Your task to perform on an android device: Look up the best rated book on Goodreads Image 0: 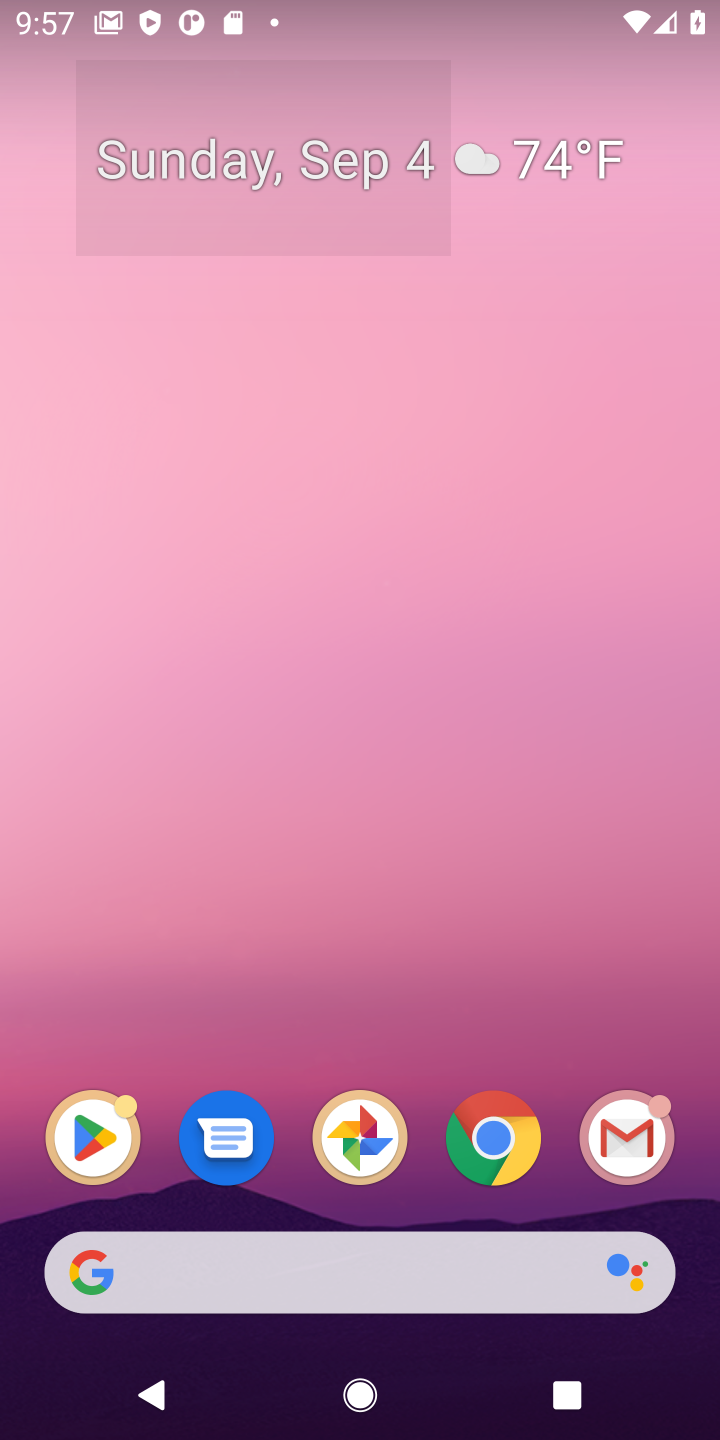
Step 0: click (512, 1128)
Your task to perform on an android device: Look up the best rated book on Goodreads Image 1: 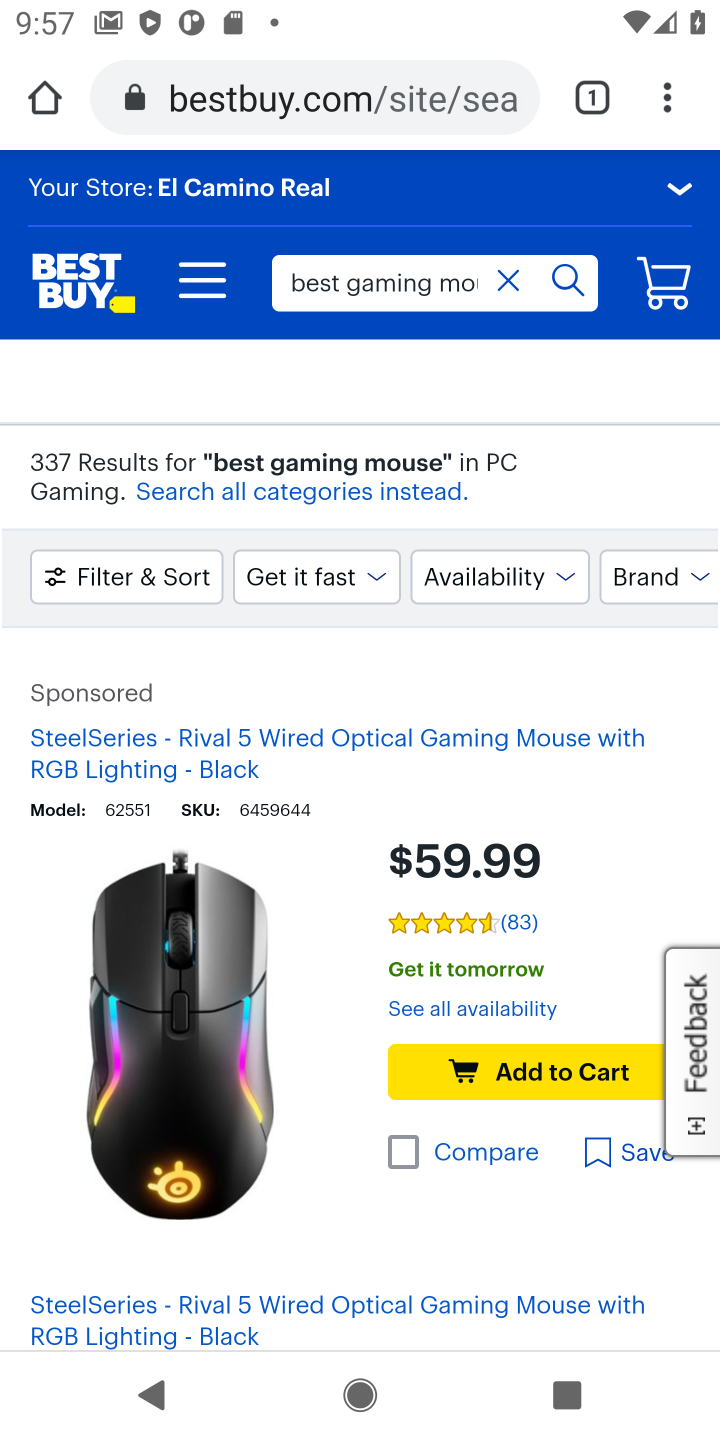
Step 1: click (416, 117)
Your task to perform on an android device: Look up the best rated book on Goodreads Image 2: 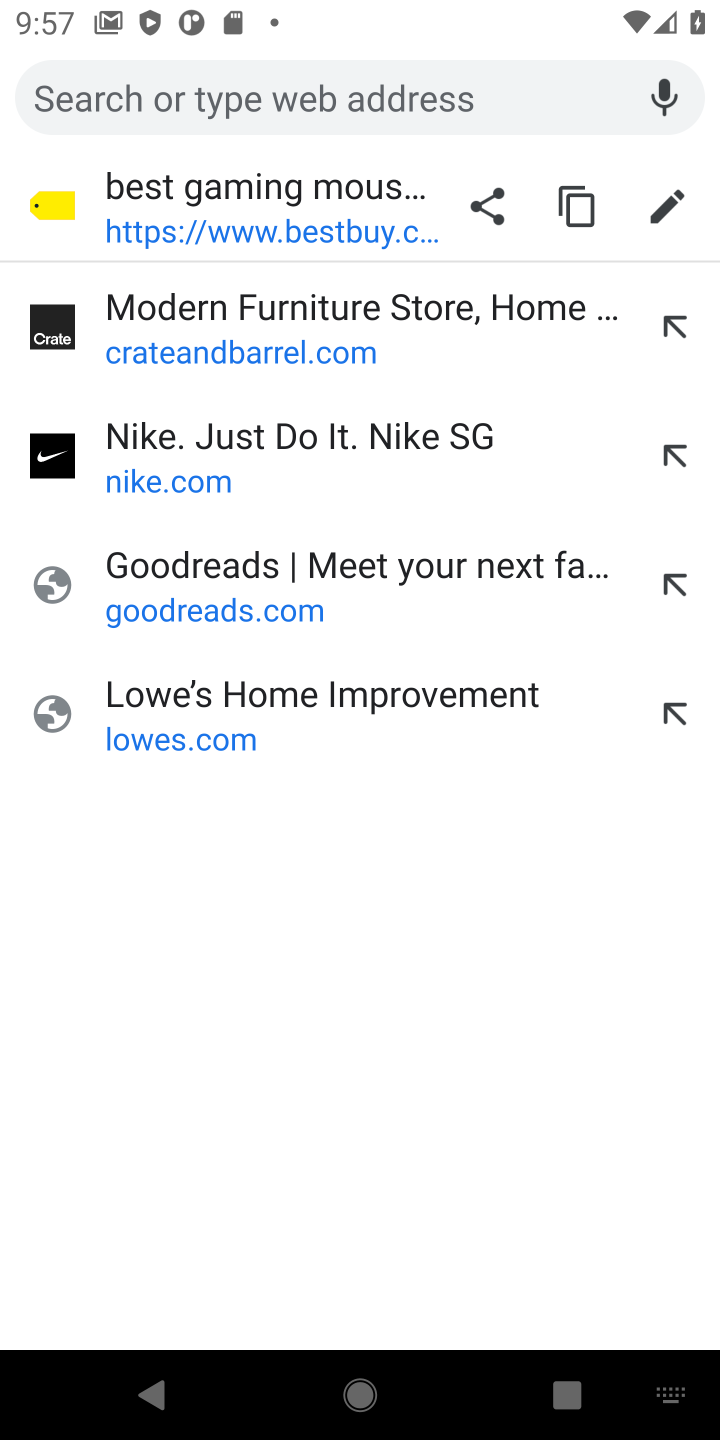
Step 2: type "goodreads"
Your task to perform on an android device: Look up the best rated book on Goodreads Image 3: 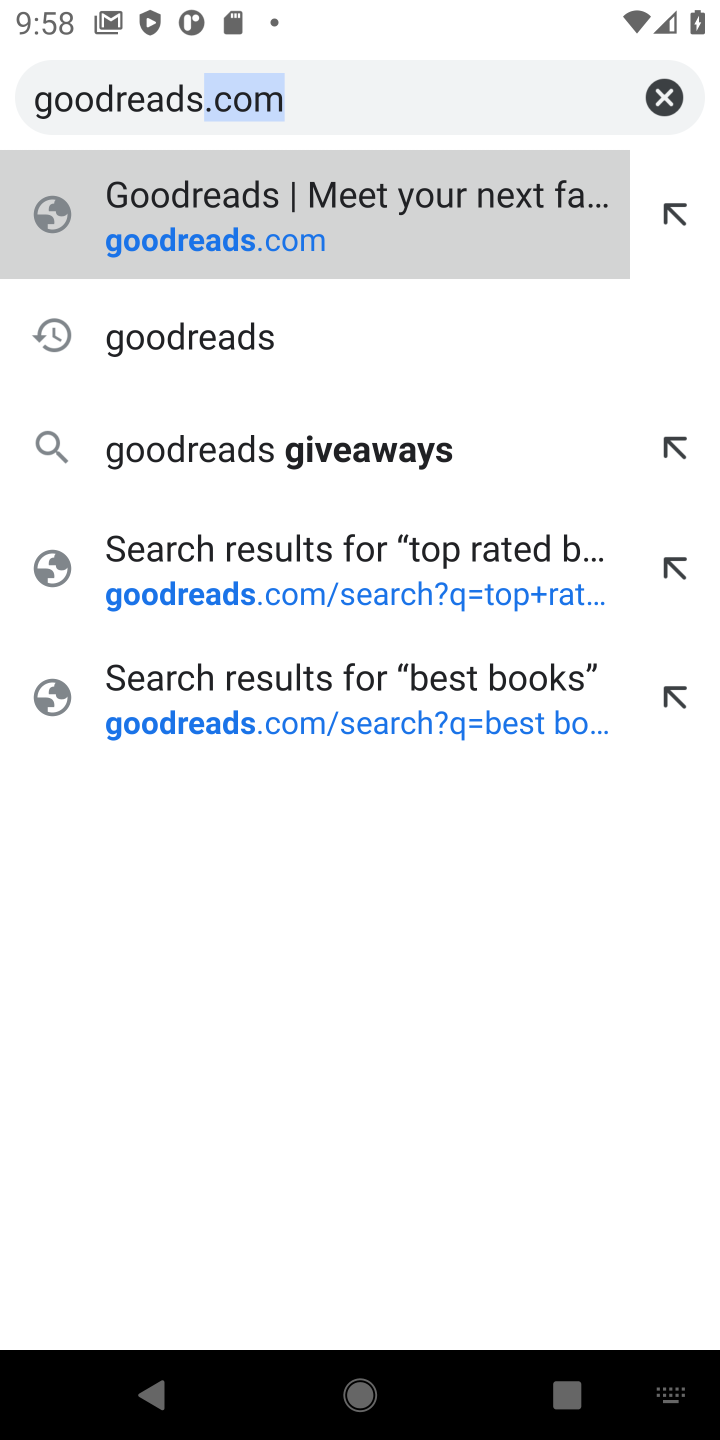
Step 3: click (370, 208)
Your task to perform on an android device: Look up the best rated book on Goodreads Image 4: 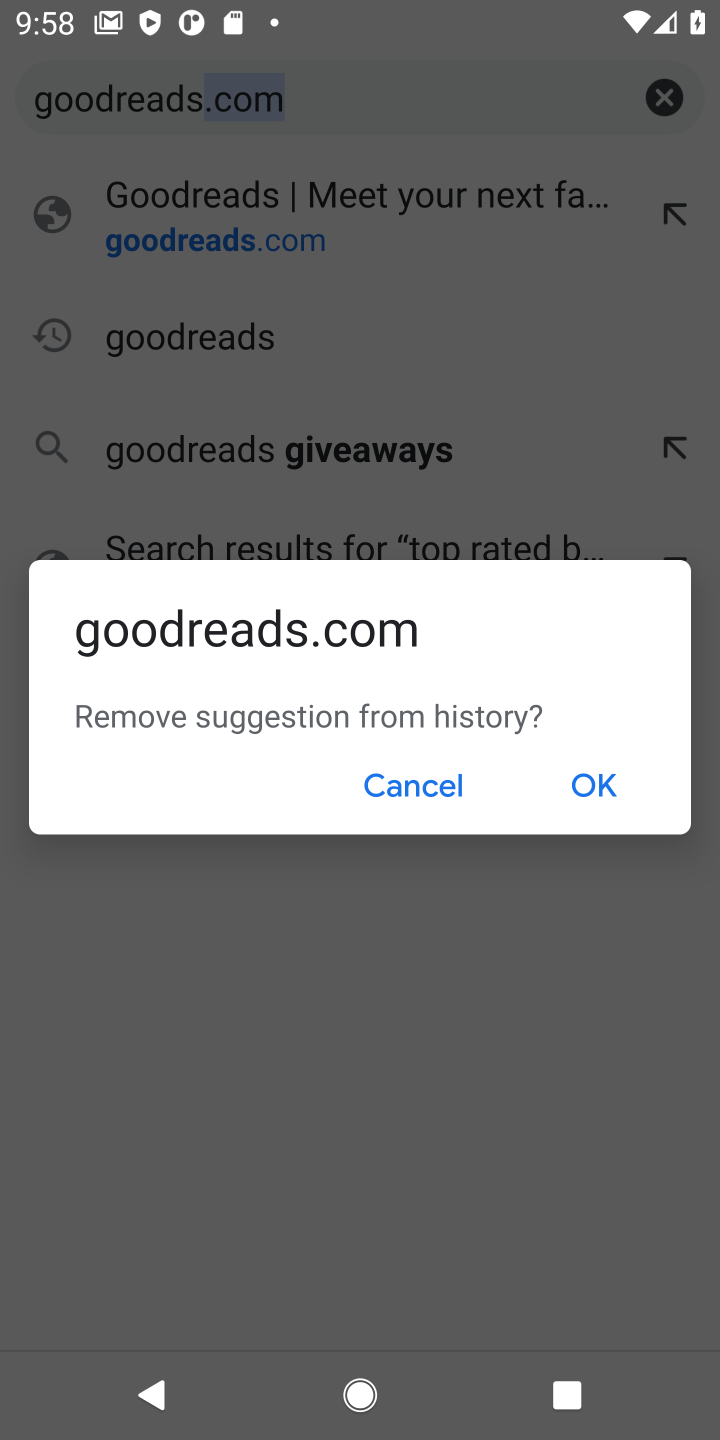
Step 4: click (468, 807)
Your task to perform on an android device: Look up the best rated book on Goodreads Image 5: 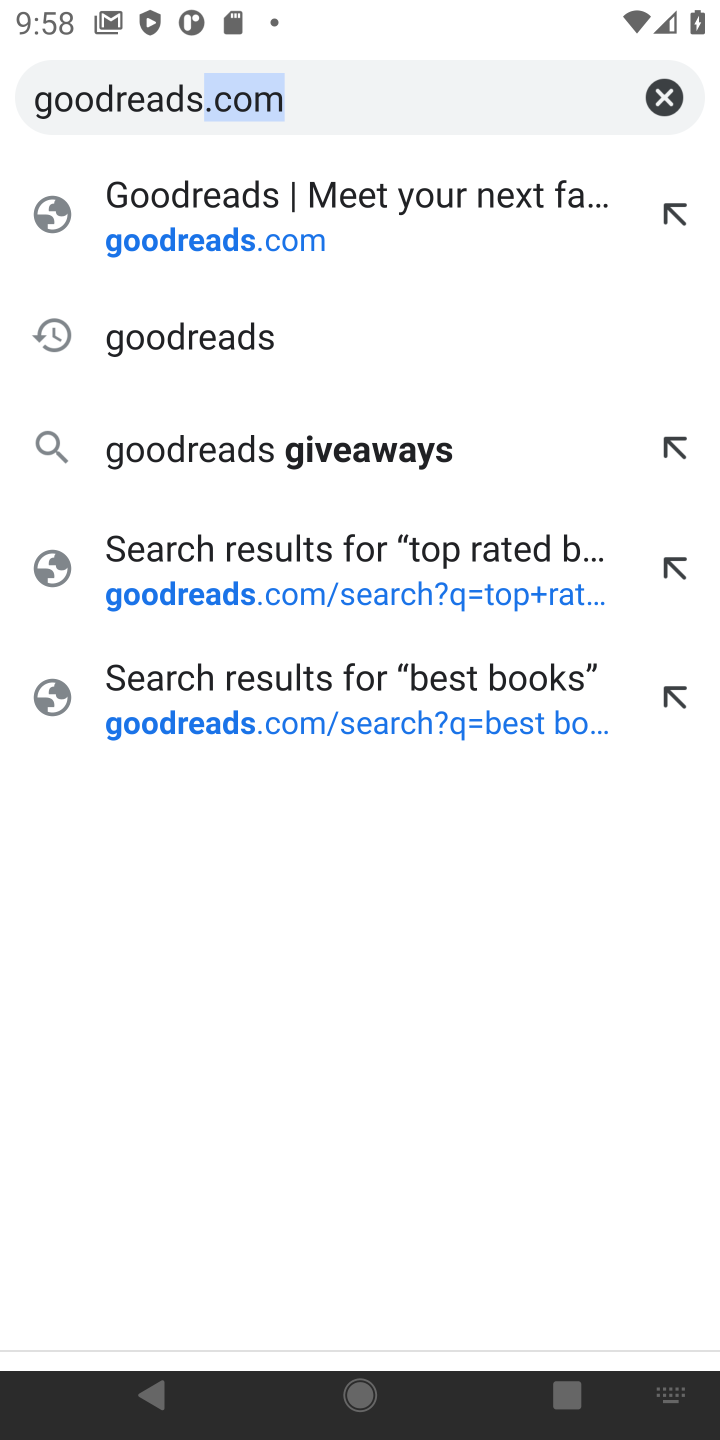
Step 5: click (446, 250)
Your task to perform on an android device: Look up the best rated book on Goodreads Image 6: 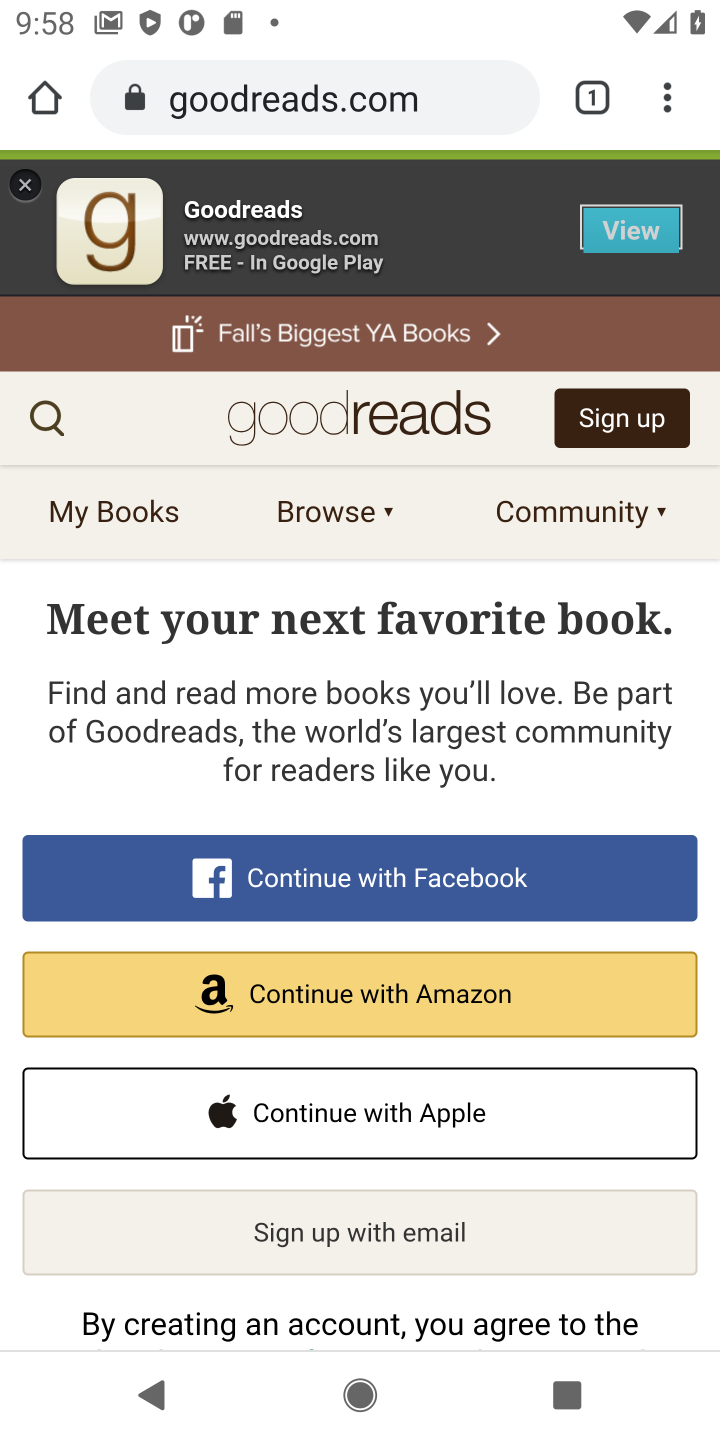
Step 6: click (24, 421)
Your task to perform on an android device: Look up the best rated book on Goodreads Image 7: 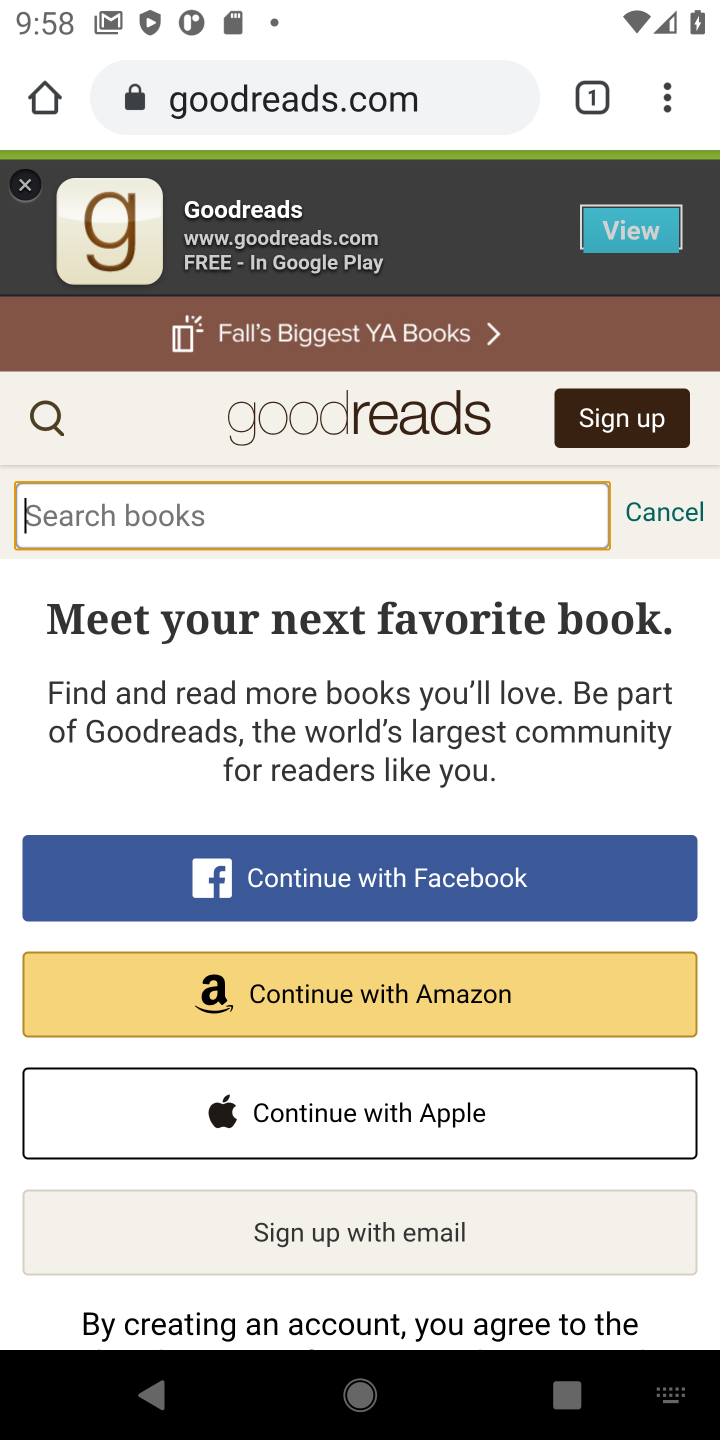
Step 7: click (211, 523)
Your task to perform on an android device: Look up the best rated book on Goodreads Image 8: 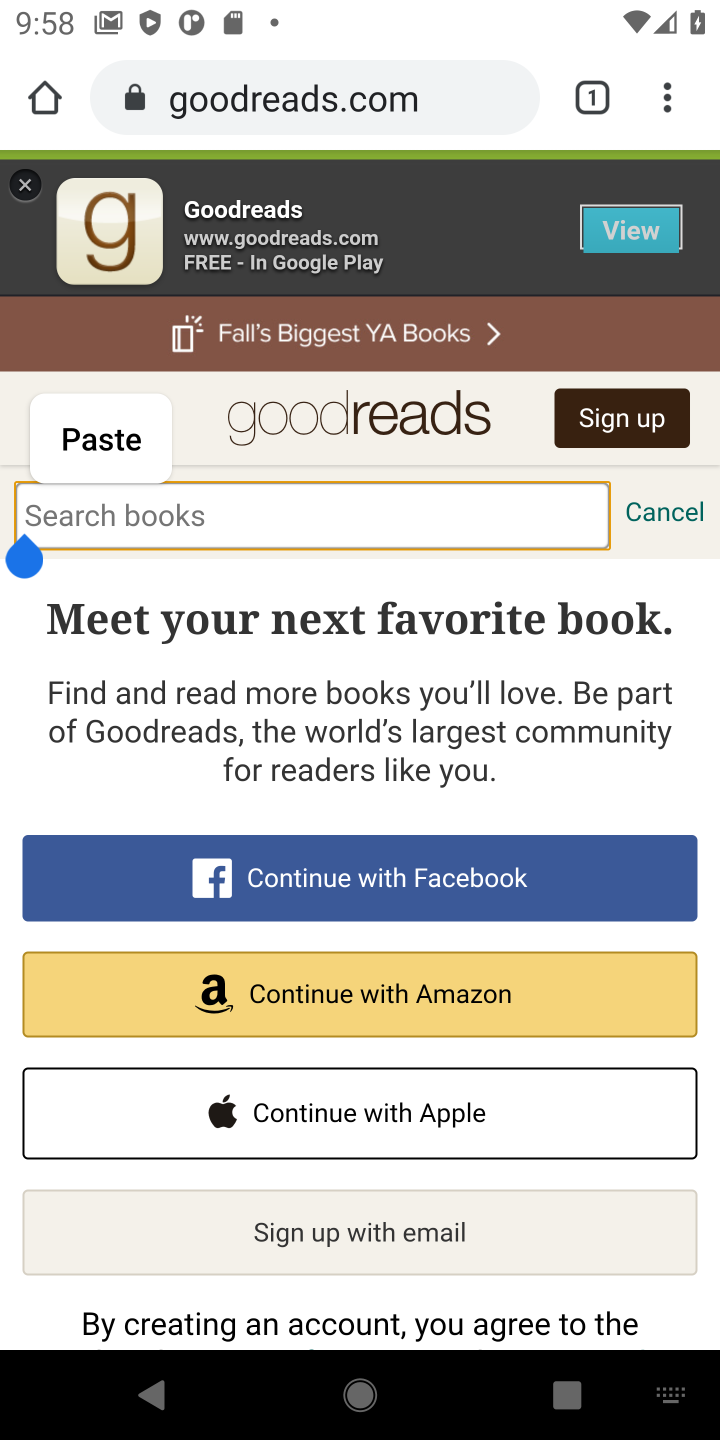
Step 8: type "best rated books"
Your task to perform on an android device: Look up the best rated book on Goodreads Image 9: 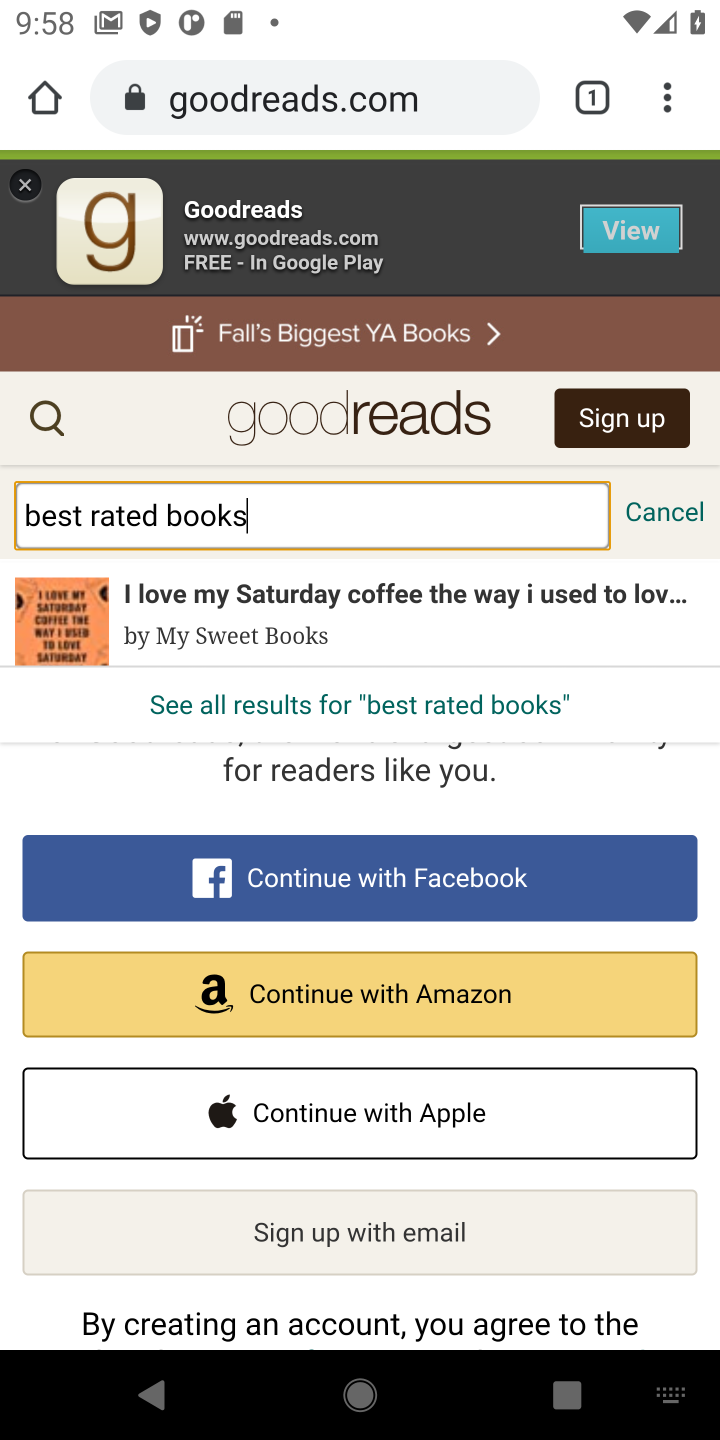
Step 9: press enter
Your task to perform on an android device: Look up the best rated book on Goodreads Image 10: 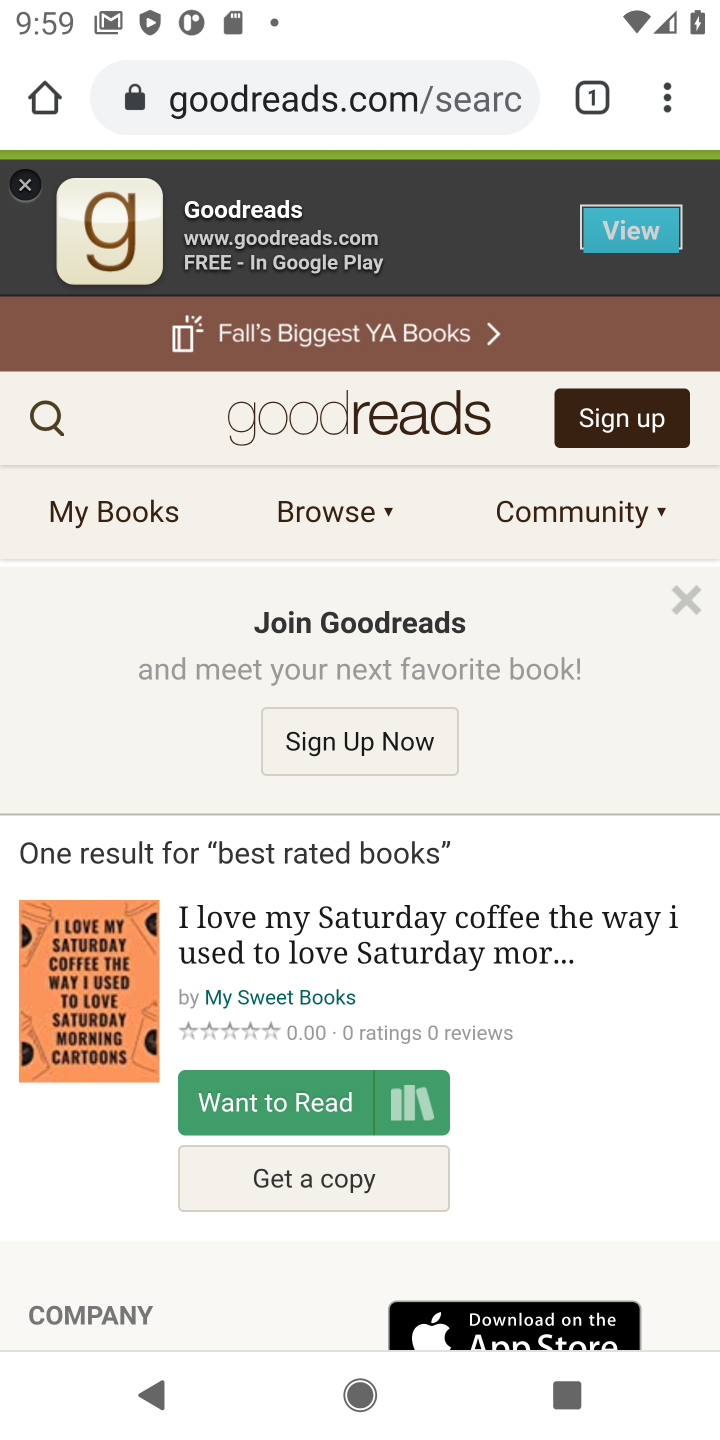
Step 10: task complete